Your task to perform on an android device: Open the calendar app, open the side menu, and click the "Day" option Image 0: 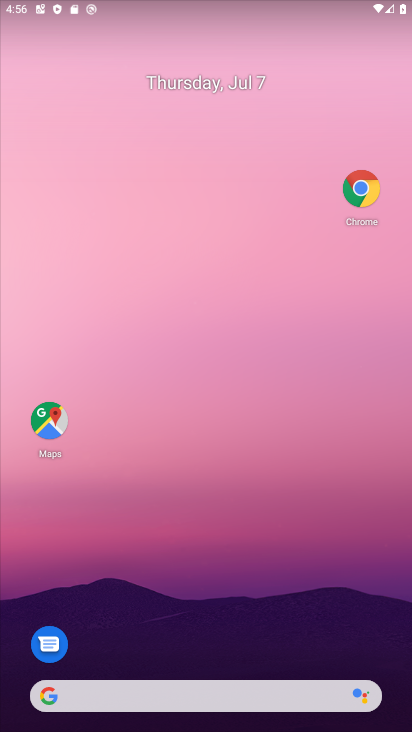
Step 0: drag from (273, 629) to (290, 45)
Your task to perform on an android device: Open the calendar app, open the side menu, and click the "Day" option Image 1: 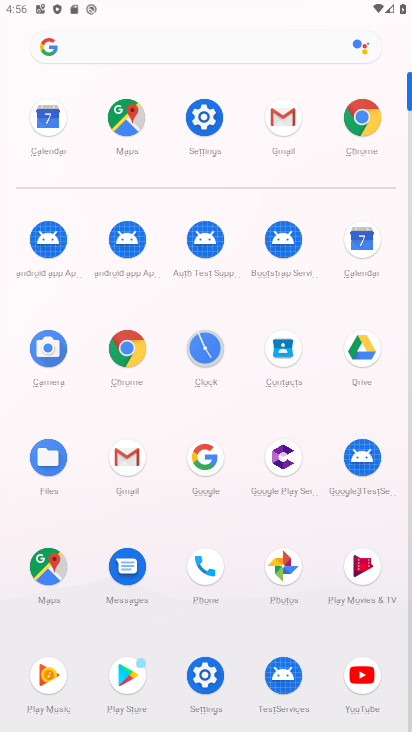
Step 1: click (364, 260)
Your task to perform on an android device: Open the calendar app, open the side menu, and click the "Day" option Image 2: 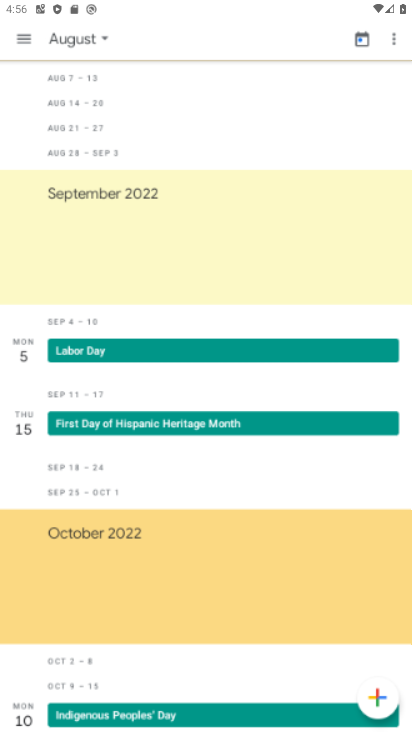
Step 2: click (16, 26)
Your task to perform on an android device: Open the calendar app, open the side menu, and click the "Day" option Image 3: 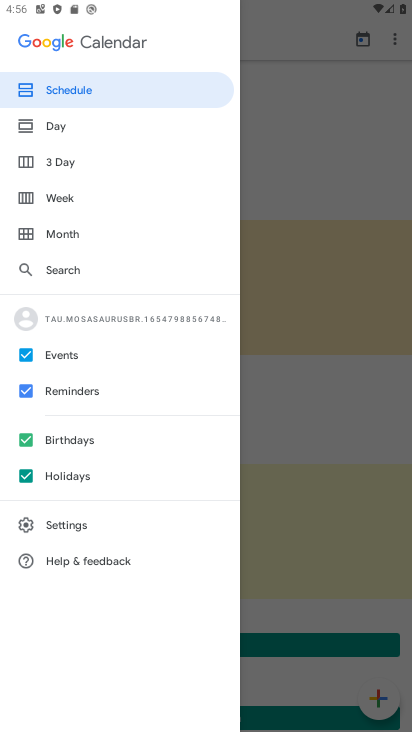
Step 3: click (42, 116)
Your task to perform on an android device: Open the calendar app, open the side menu, and click the "Day" option Image 4: 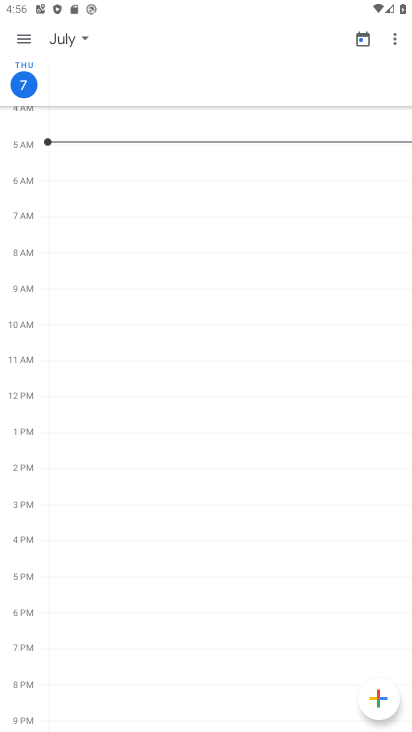
Step 4: task complete